Your task to perform on an android device: move a message to another label in the gmail app Image 0: 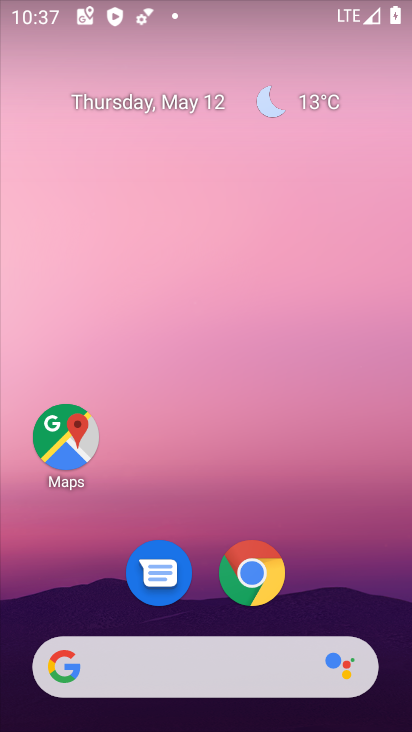
Step 0: drag from (174, 624) to (168, 1)
Your task to perform on an android device: move a message to another label in the gmail app Image 1: 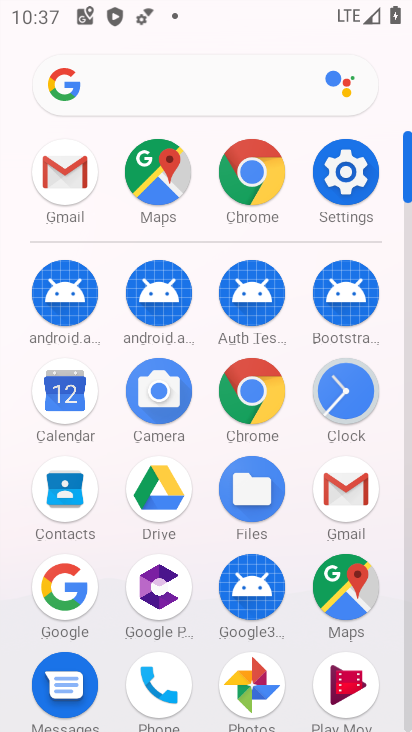
Step 1: click (334, 486)
Your task to perform on an android device: move a message to another label in the gmail app Image 2: 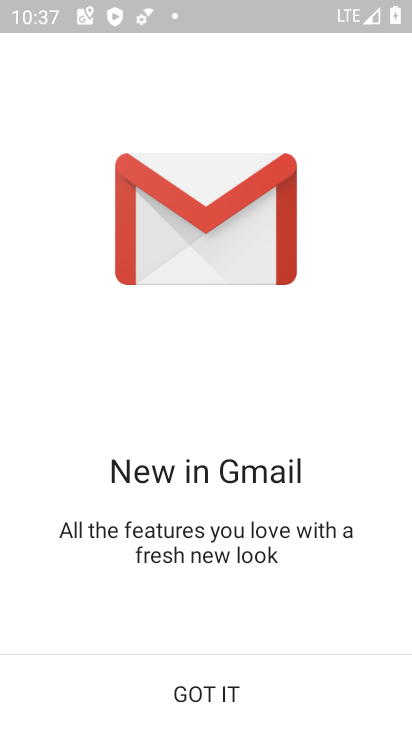
Step 2: click (294, 679)
Your task to perform on an android device: move a message to another label in the gmail app Image 3: 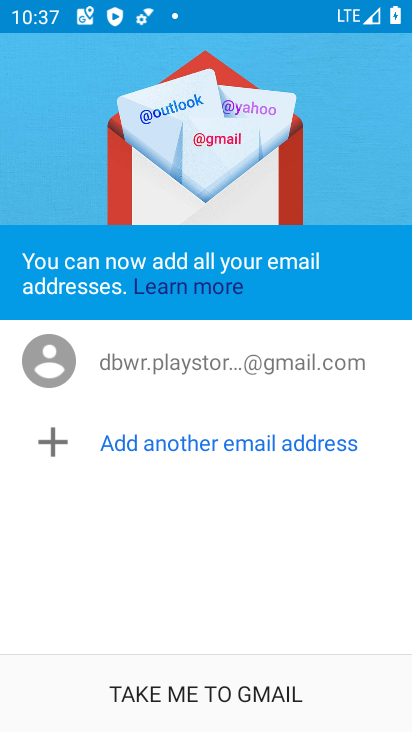
Step 3: click (249, 690)
Your task to perform on an android device: move a message to another label in the gmail app Image 4: 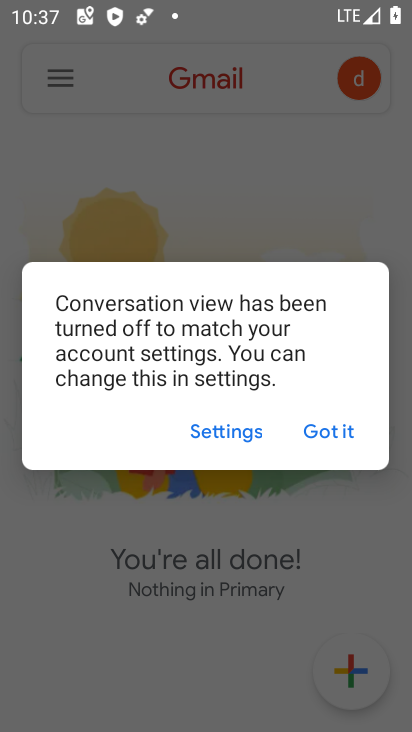
Step 4: click (343, 435)
Your task to perform on an android device: move a message to another label in the gmail app Image 5: 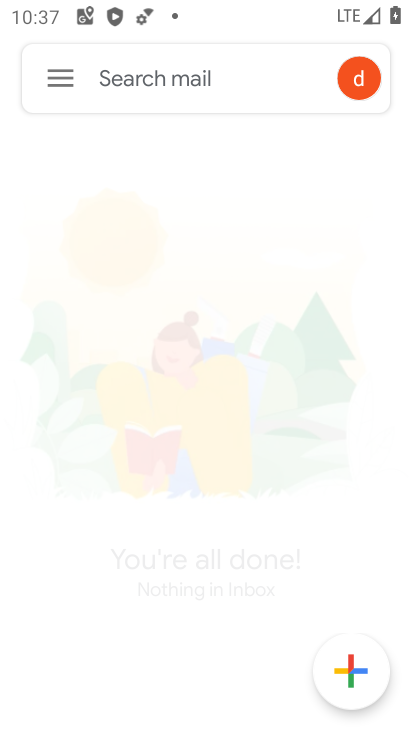
Step 5: task complete